Your task to perform on an android device: Play the new Demi Lovato video on YouTube Image 0: 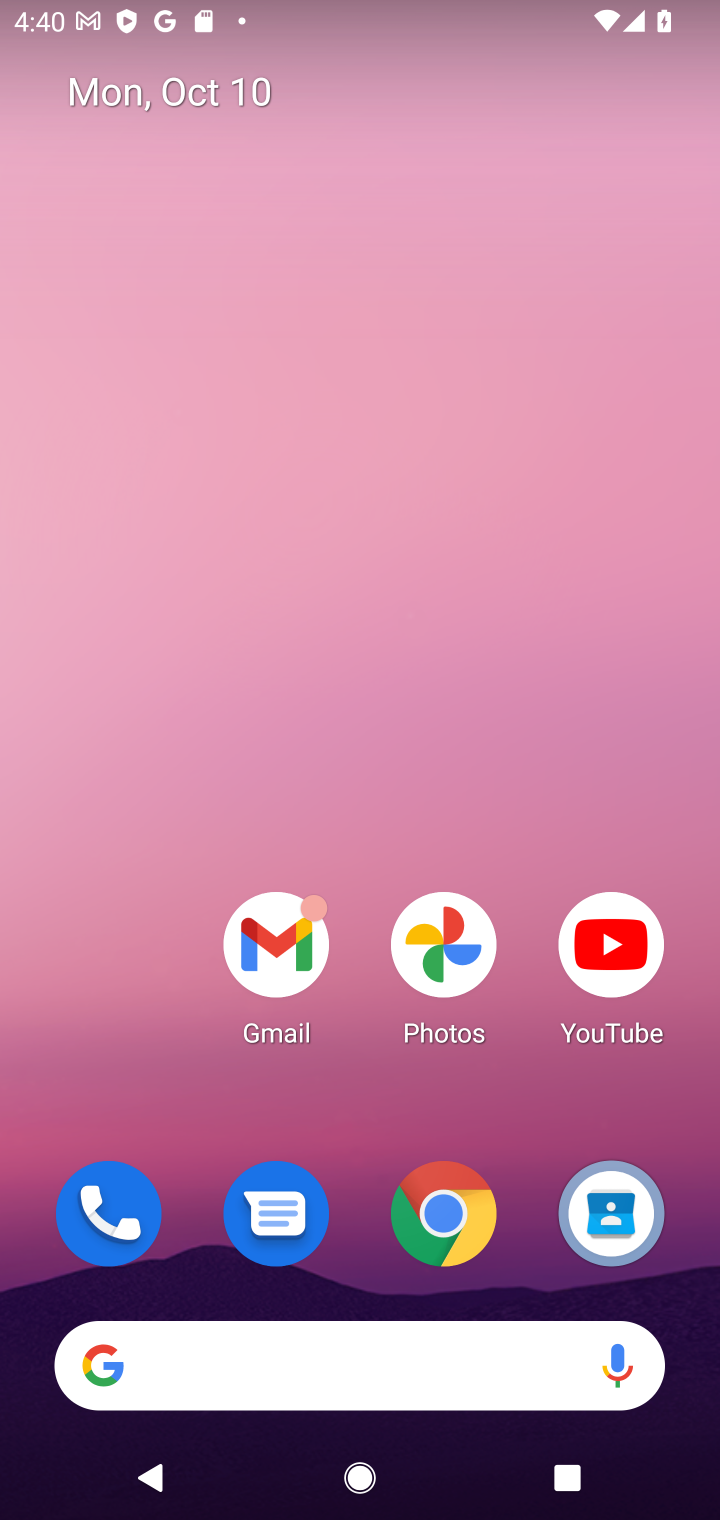
Step 0: click (645, 955)
Your task to perform on an android device: Play the new Demi Lovato video on YouTube Image 1: 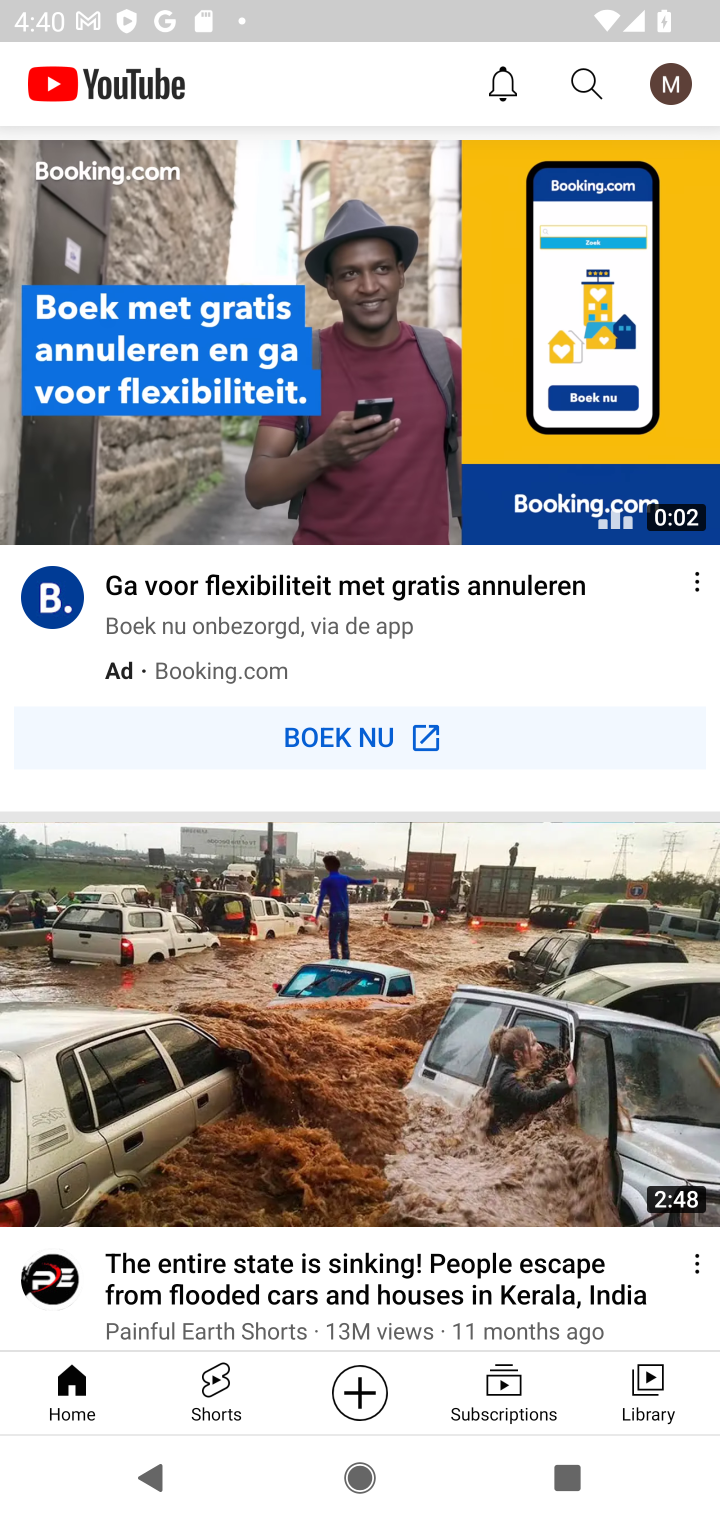
Step 1: click (583, 71)
Your task to perform on an android device: Play the new Demi Lovato video on YouTube Image 2: 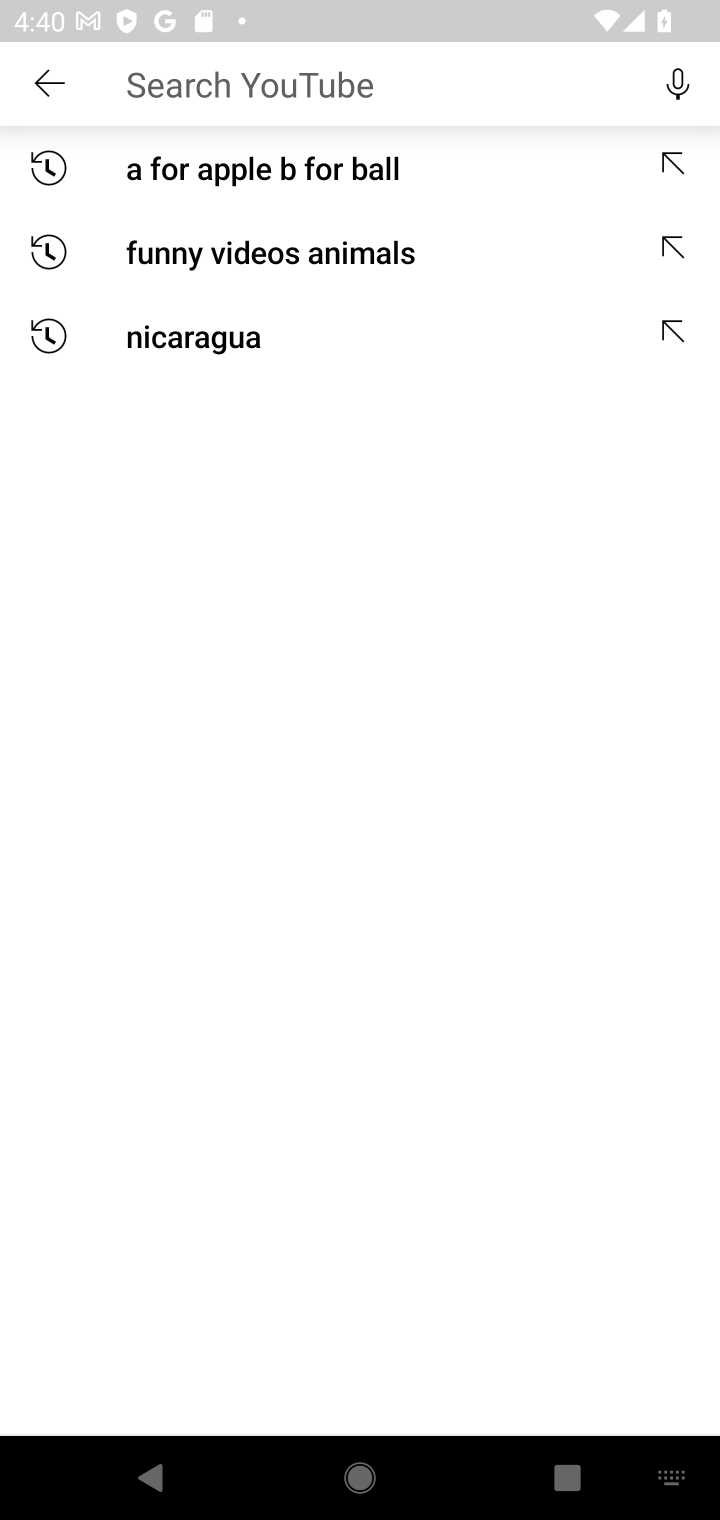
Step 2: type " Demi Lovato video"
Your task to perform on an android device: Play the new Demi Lovato video on YouTube Image 3: 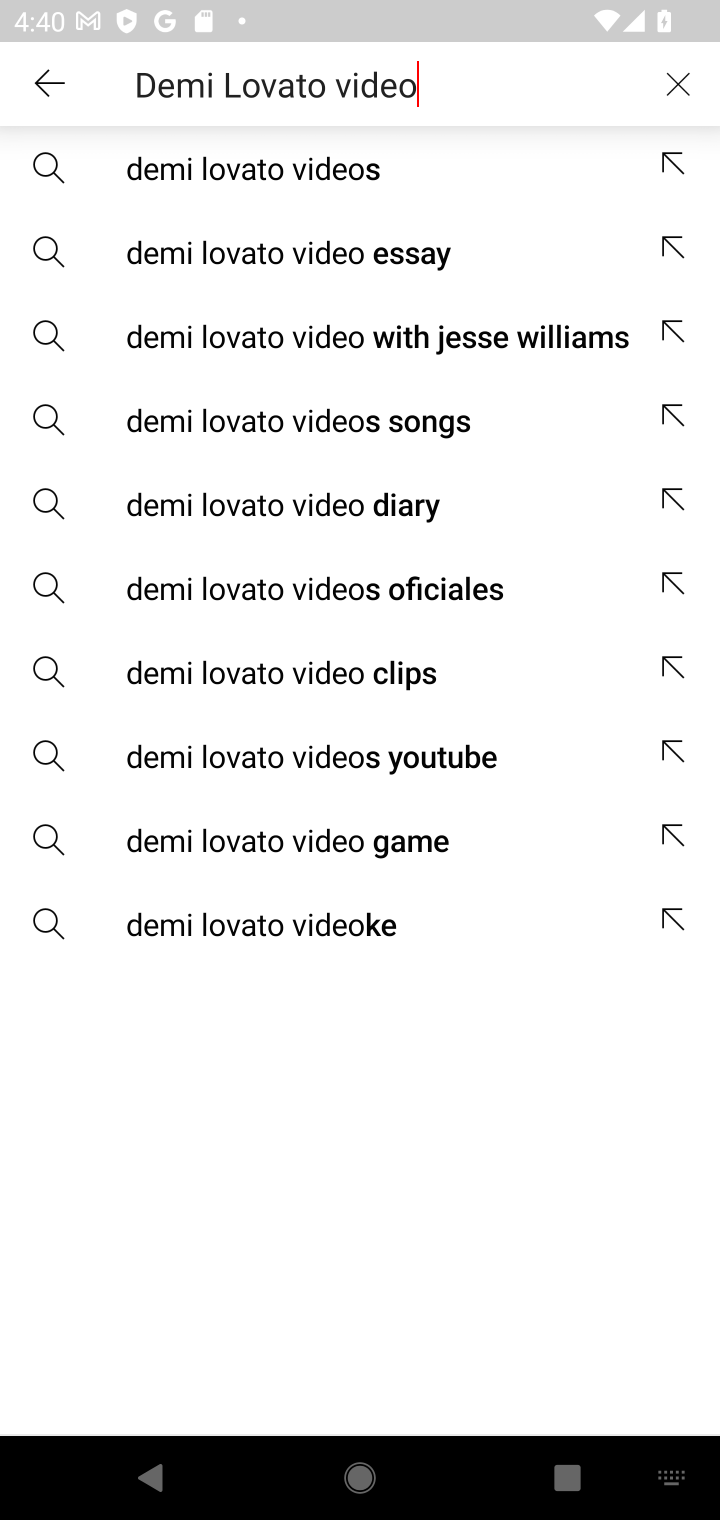
Step 3: click (292, 177)
Your task to perform on an android device: Play the new Demi Lovato video on YouTube Image 4: 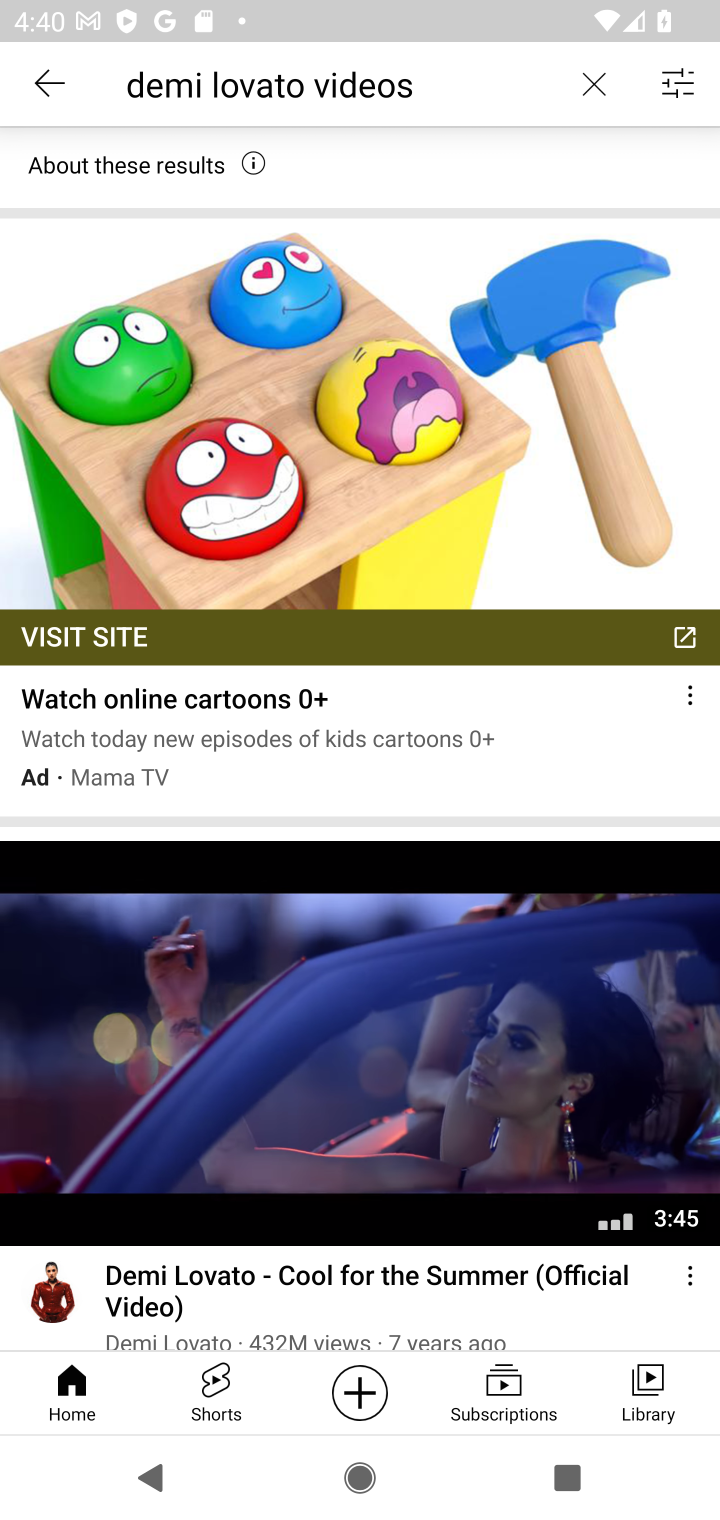
Step 4: drag from (407, 918) to (498, 533)
Your task to perform on an android device: Play the new Demi Lovato video on YouTube Image 5: 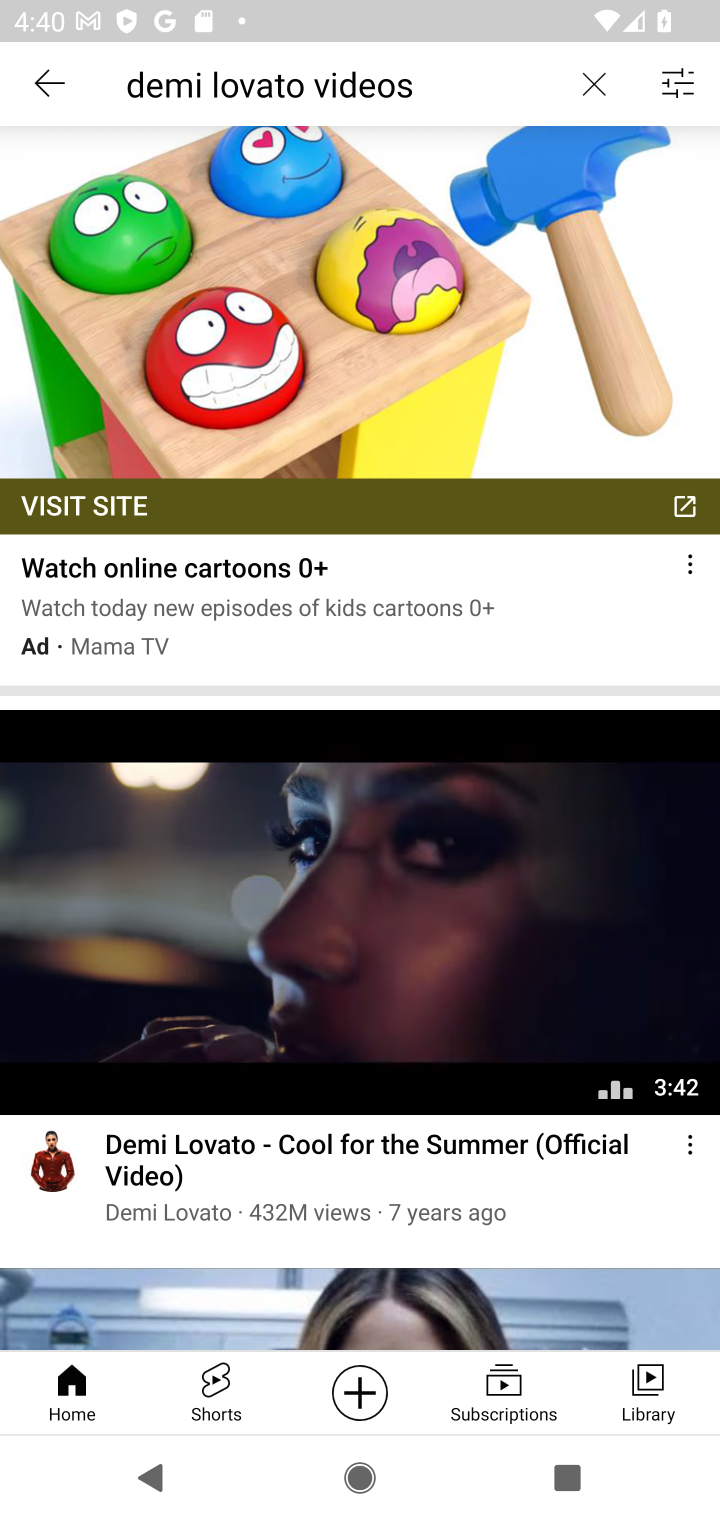
Step 5: click (417, 939)
Your task to perform on an android device: Play the new Demi Lovato video on YouTube Image 6: 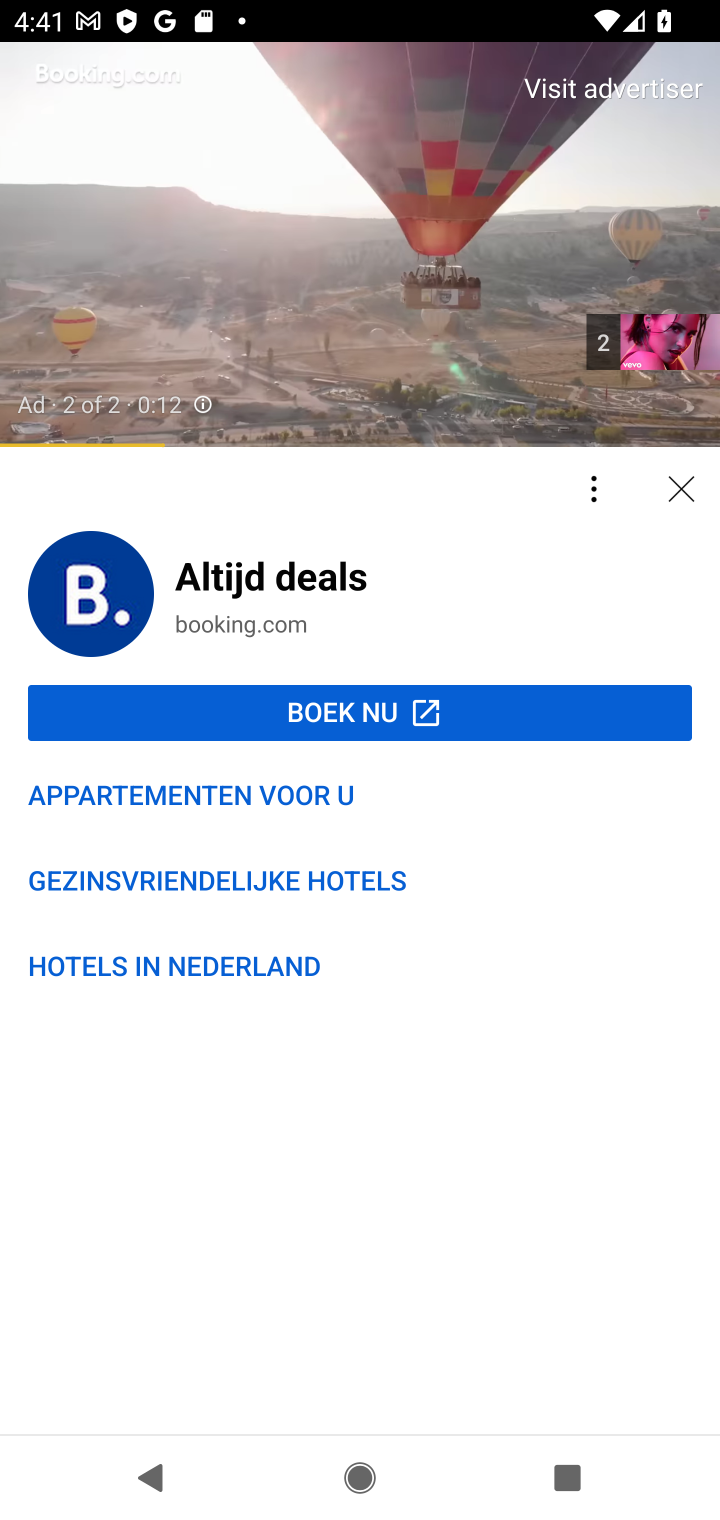
Step 6: click (683, 492)
Your task to perform on an android device: Play the new Demi Lovato video on YouTube Image 7: 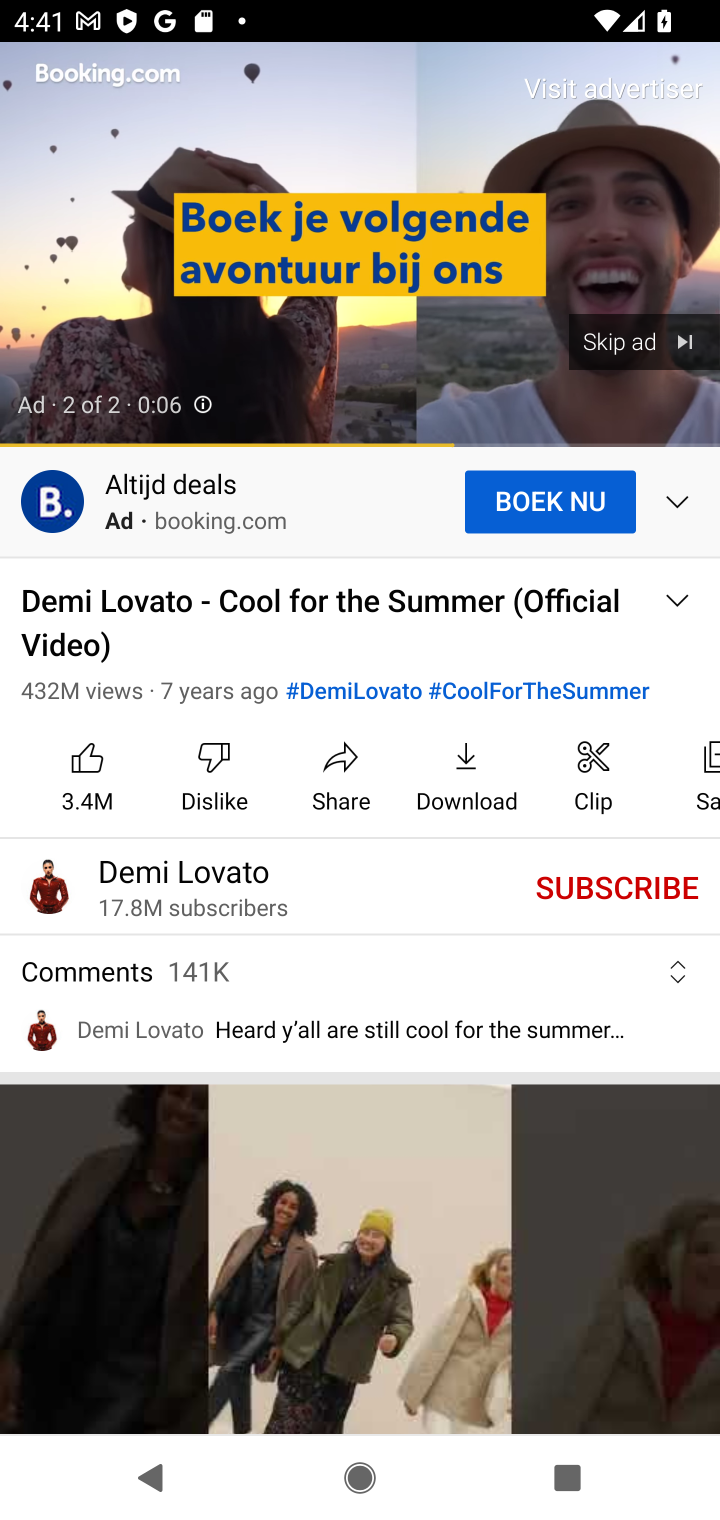
Step 7: click (637, 356)
Your task to perform on an android device: Play the new Demi Lovato video on YouTube Image 8: 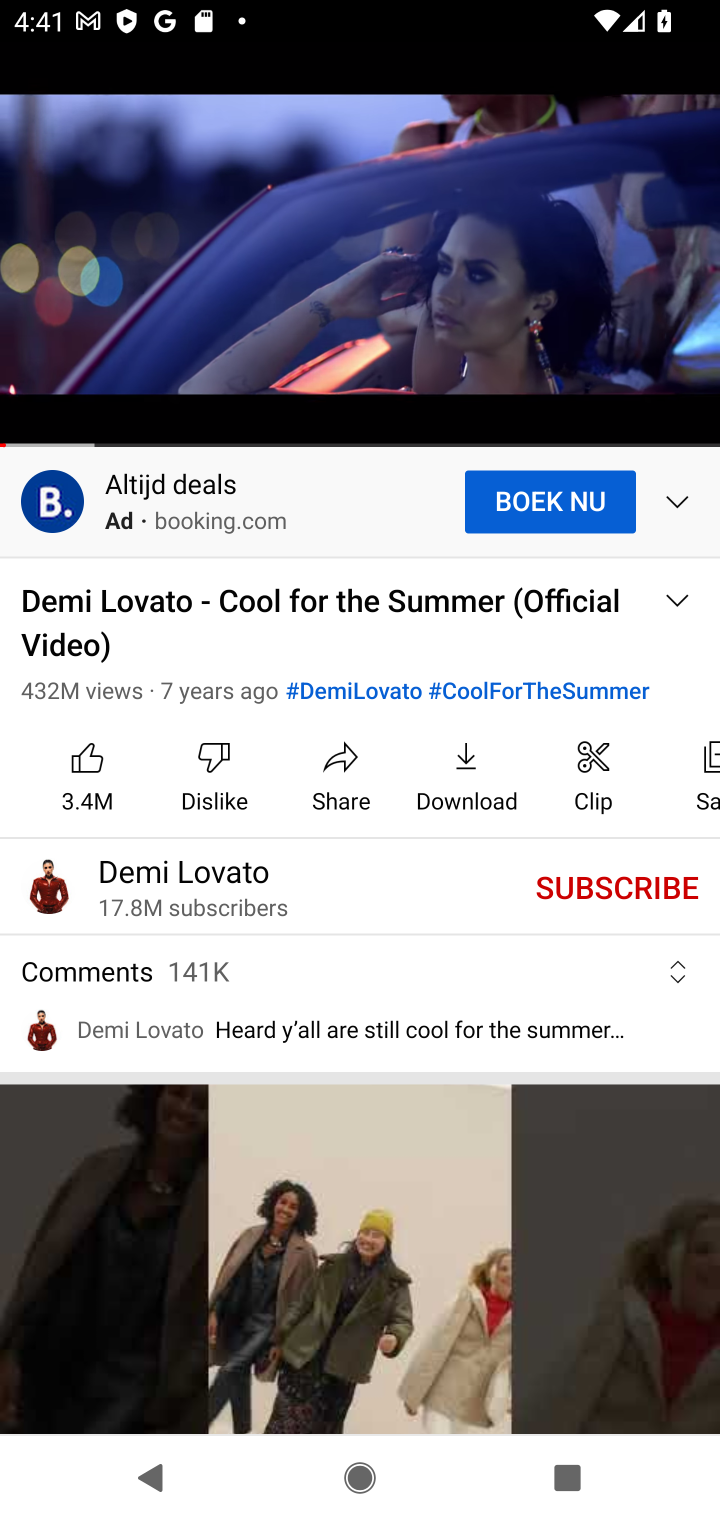
Step 8: click (447, 237)
Your task to perform on an android device: Play the new Demi Lovato video on YouTube Image 9: 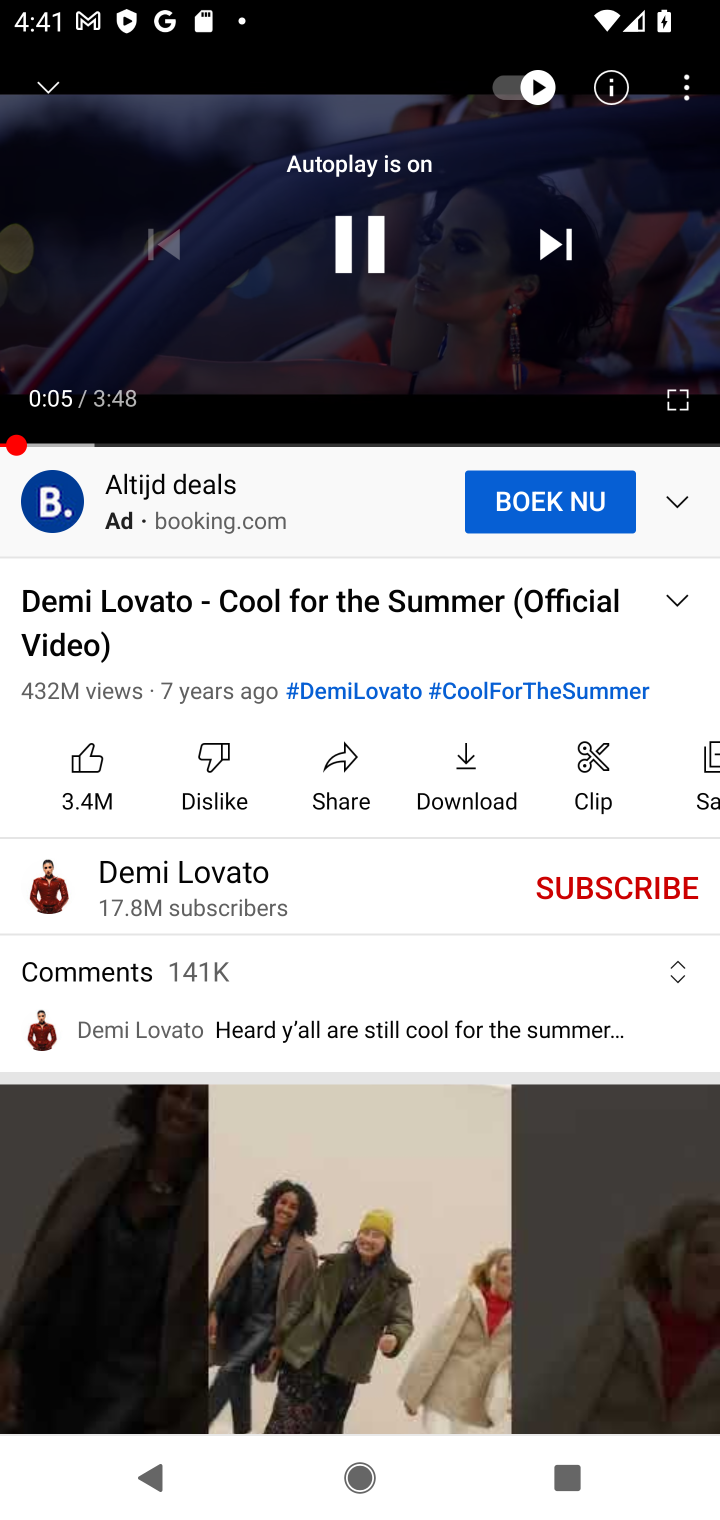
Step 9: click (346, 264)
Your task to perform on an android device: Play the new Demi Lovato video on YouTube Image 10: 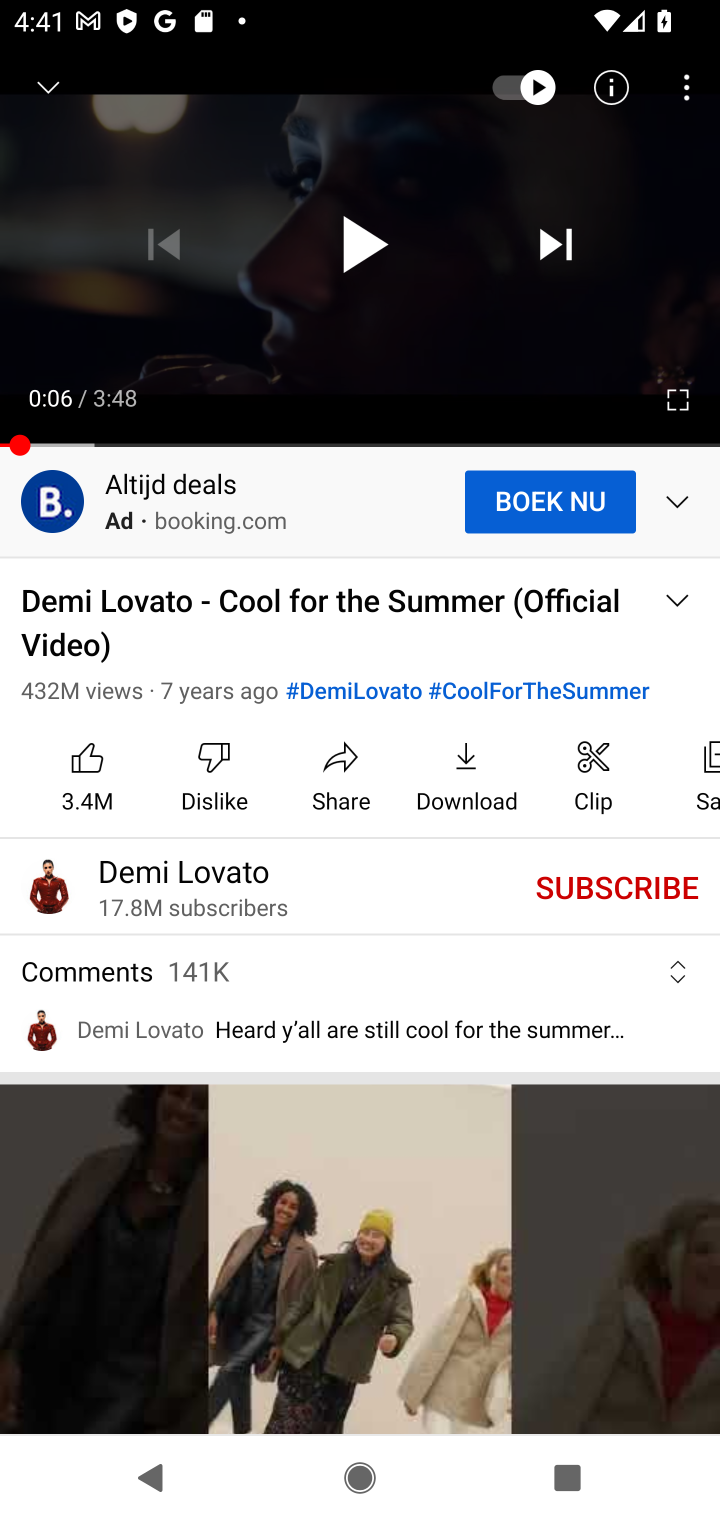
Step 10: task complete